Your task to perform on an android device: check battery use Image 0: 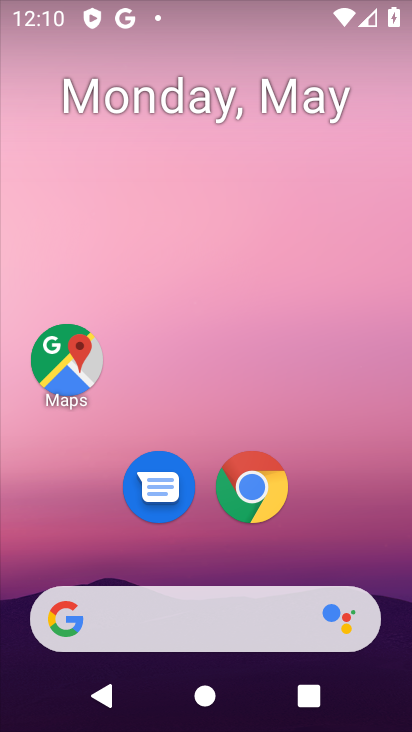
Step 0: drag from (324, 554) to (233, 37)
Your task to perform on an android device: check battery use Image 1: 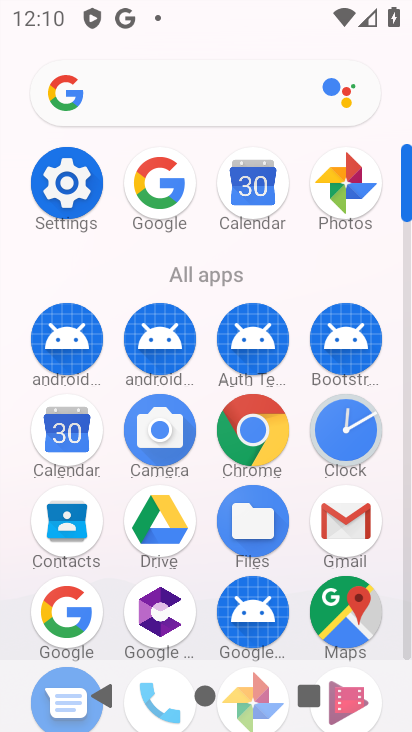
Step 1: click (68, 183)
Your task to perform on an android device: check battery use Image 2: 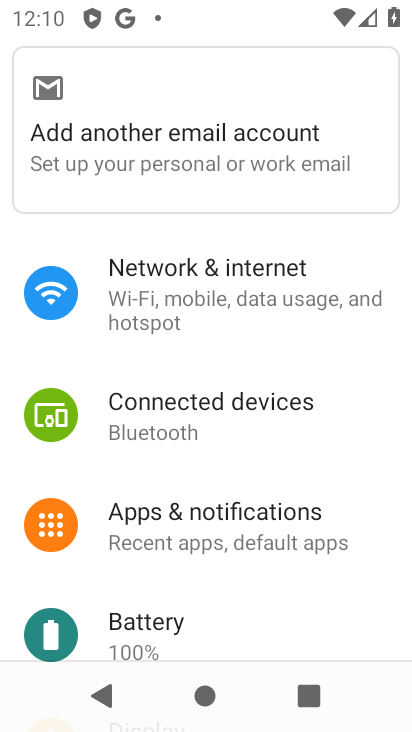
Step 2: drag from (150, 454) to (158, 250)
Your task to perform on an android device: check battery use Image 3: 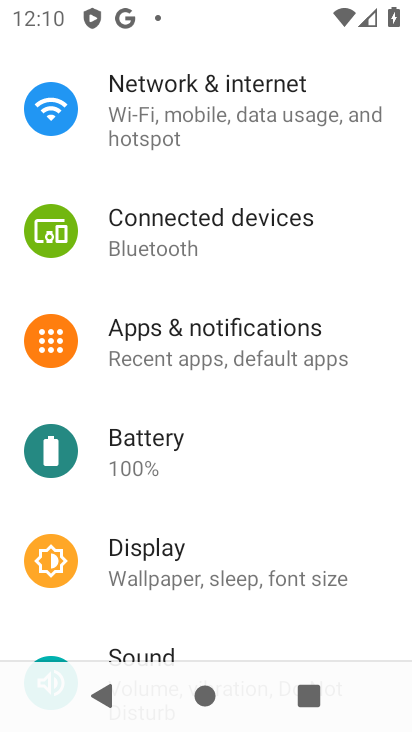
Step 3: click (147, 439)
Your task to perform on an android device: check battery use Image 4: 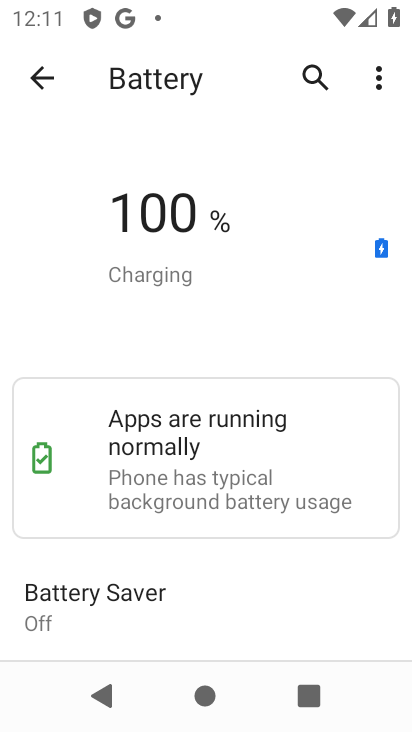
Step 4: click (383, 82)
Your task to perform on an android device: check battery use Image 5: 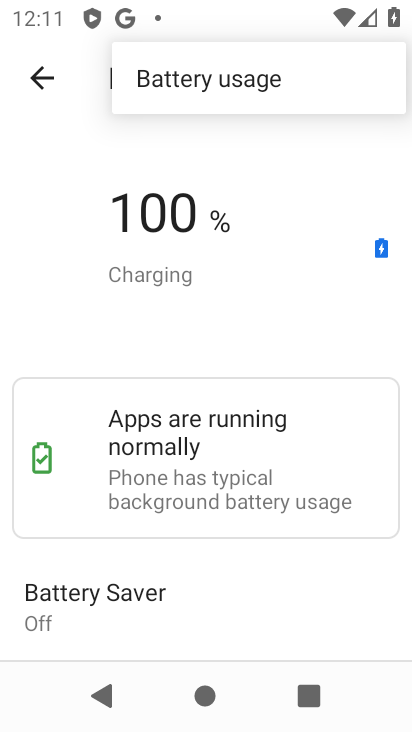
Step 5: click (224, 86)
Your task to perform on an android device: check battery use Image 6: 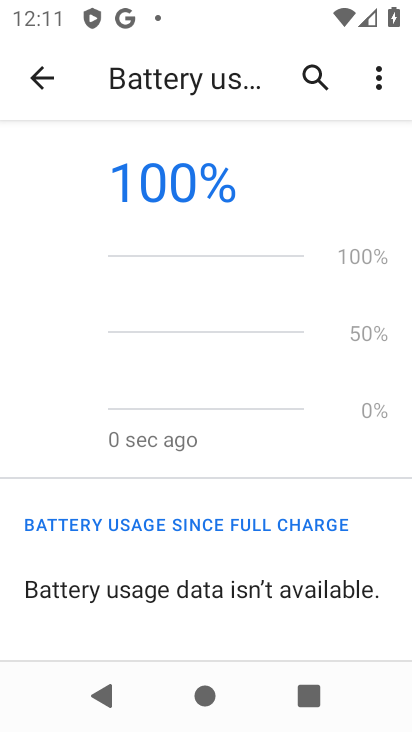
Step 6: task complete